Your task to perform on an android device: add a label to a message in the gmail app Image 0: 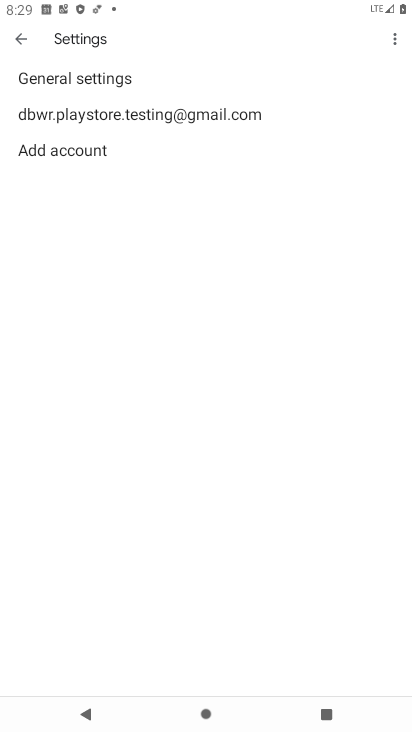
Step 0: press home button
Your task to perform on an android device: add a label to a message in the gmail app Image 1: 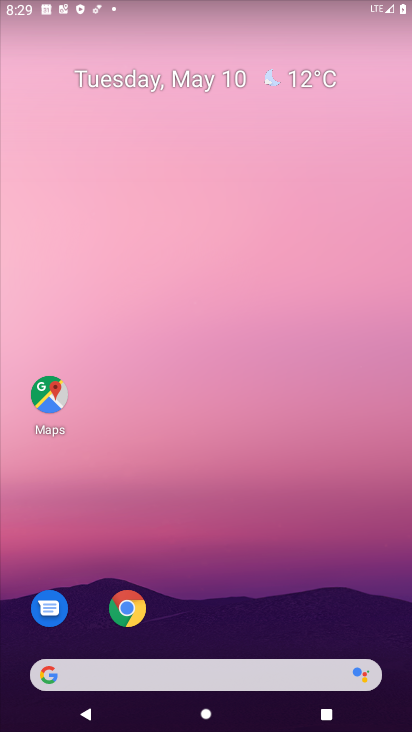
Step 1: drag from (248, 676) to (323, 278)
Your task to perform on an android device: add a label to a message in the gmail app Image 2: 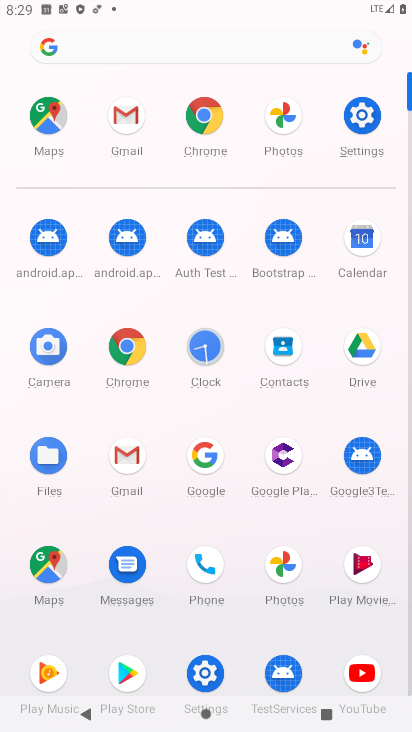
Step 2: click (125, 129)
Your task to perform on an android device: add a label to a message in the gmail app Image 3: 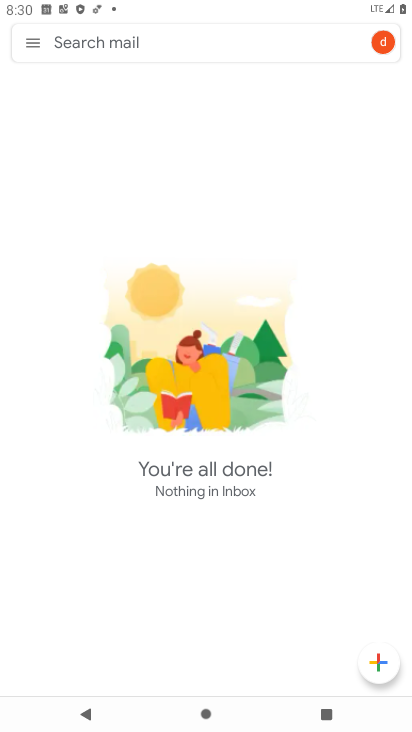
Step 3: task complete